Your task to perform on an android device: open app "DoorDash - Dasher" Image 0: 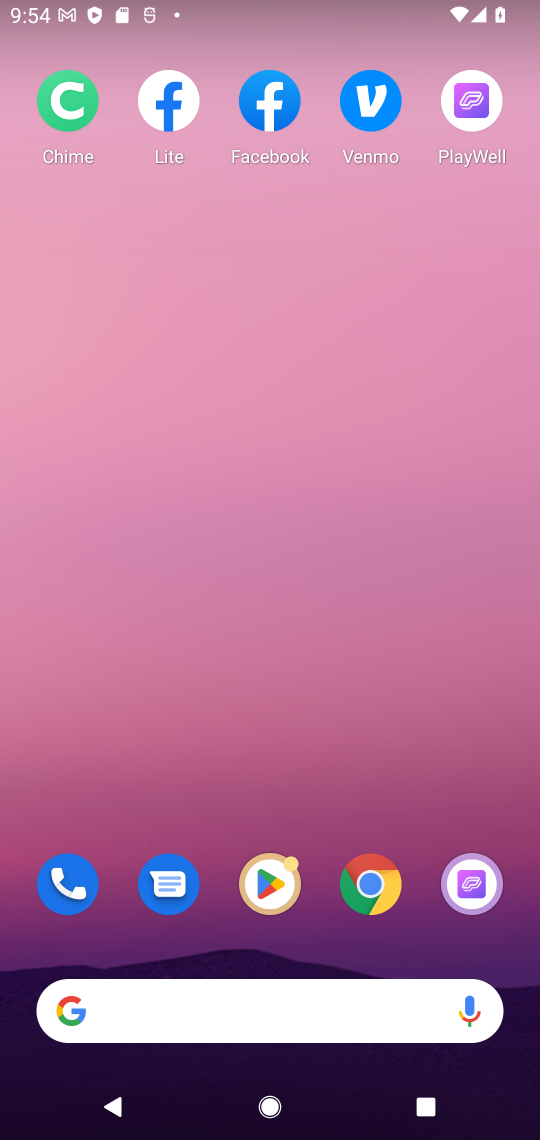
Step 0: click (261, 871)
Your task to perform on an android device: open app "DoorDash - Dasher" Image 1: 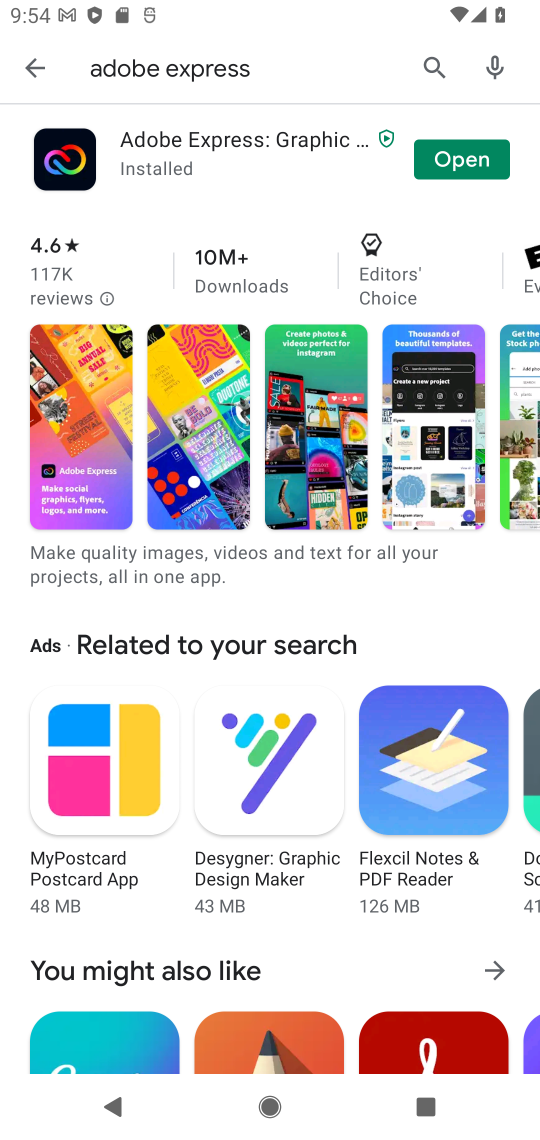
Step 1: click (450, 60)
Your task to perform on an android device: open app "DoorDash - Dasher" Image 2: 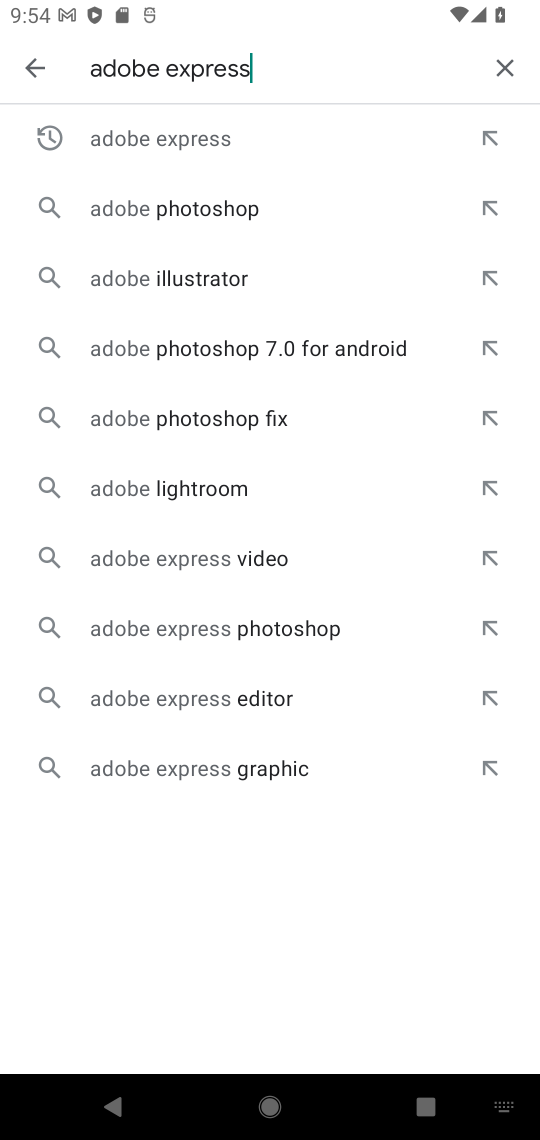
Step 2: click (495, 72)
Your task to perform on an android device: open app "DoorDash - Dasher" Image 3: 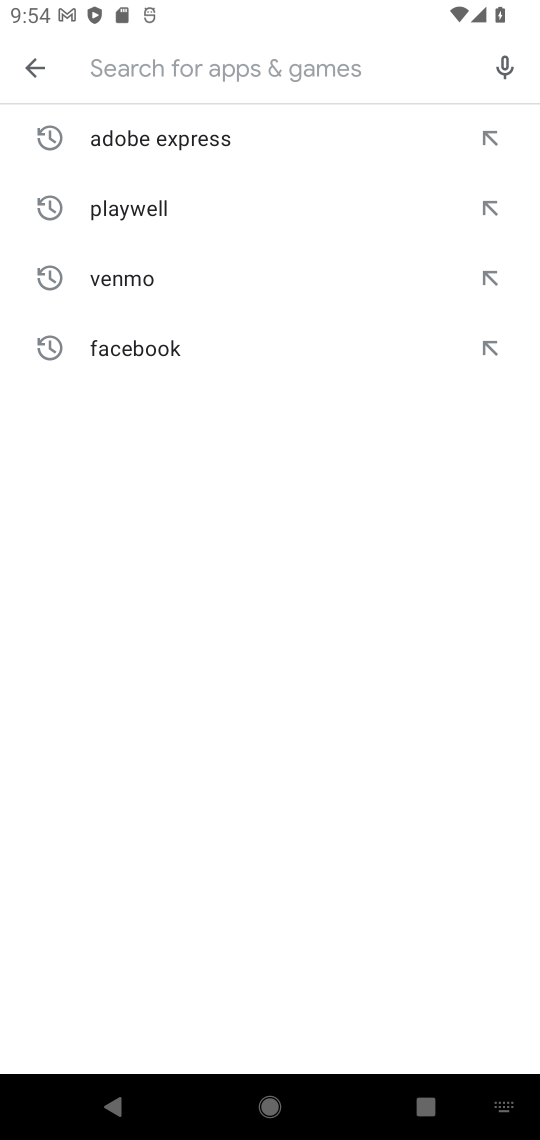
Step 3: type "doordash"
Your task to perform on an android device: open app "DoorDash - Dasher" Image 4: 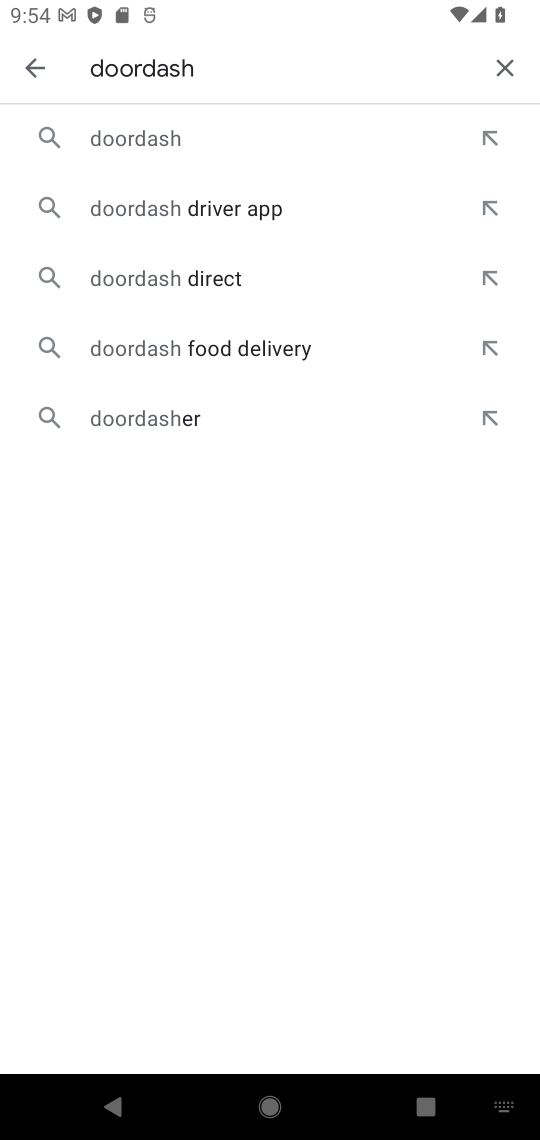
Step 4: click (217, 141)
Your task to perform on an android device: open app "DoorDash - Dasher" Image 5: 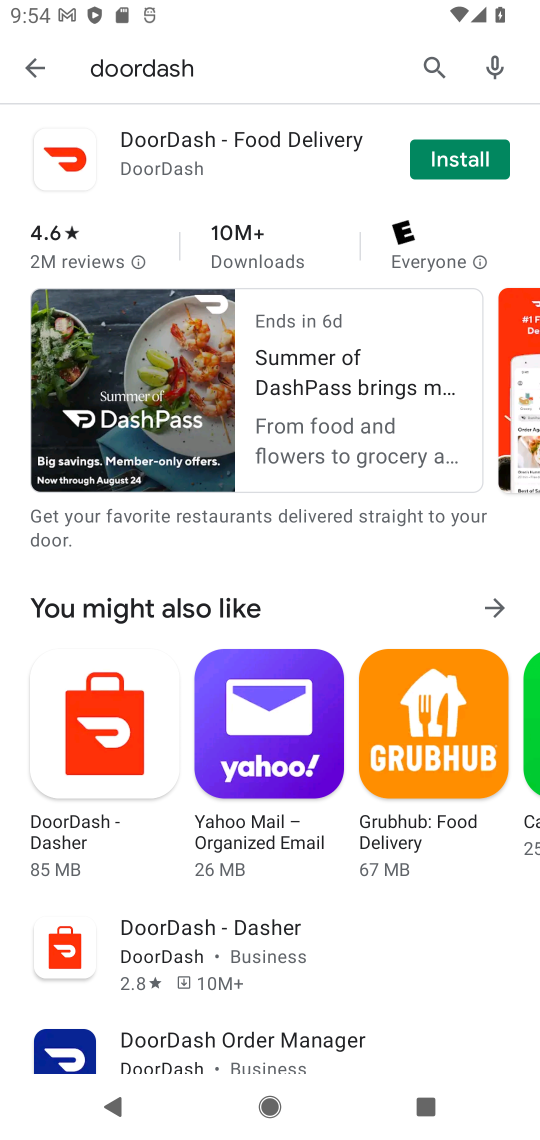
Step 5: click (436, 157)
Your task to perform on an android device: open app "DoorDash - Dasher" Image 6: 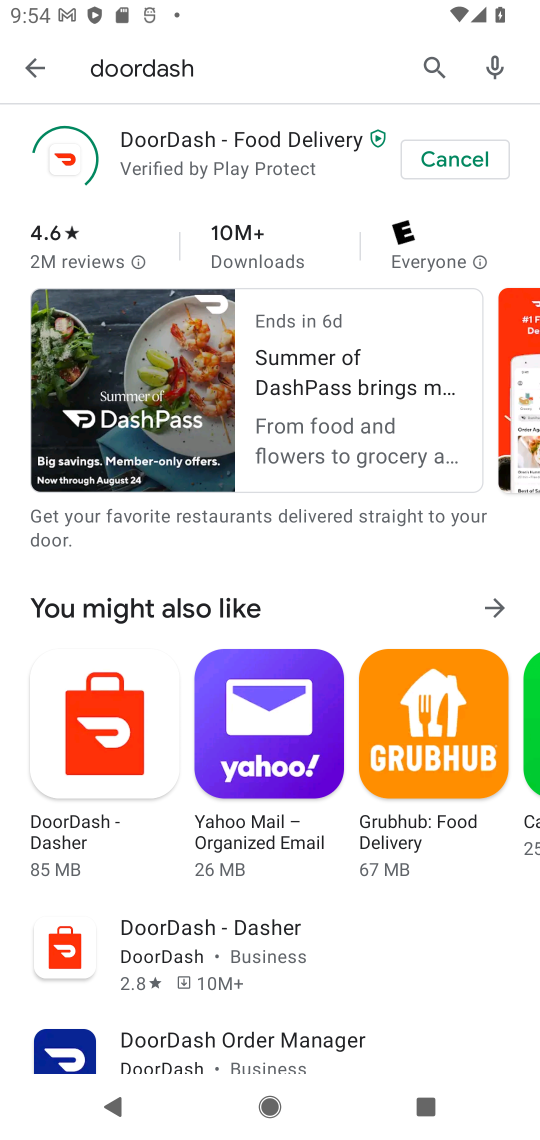
Step 6: task complete